Your task to perform on an android device: toggle priority inbox in the gmail app Image 0: 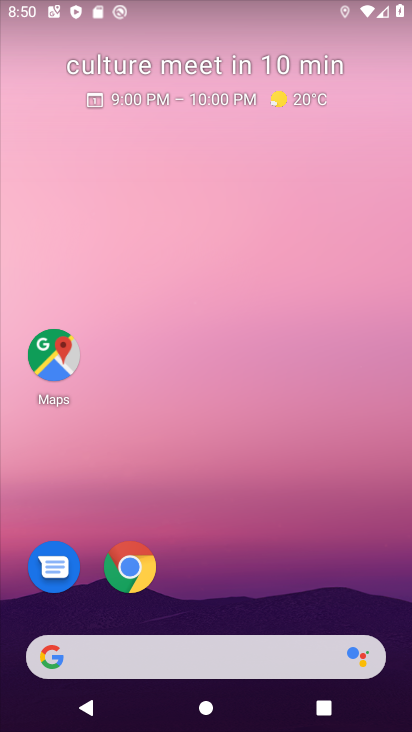
Step 0: drag from (201, 603) to (198, 68)
Your task to perform on an android device: toggle priority inbox in the gmail app Image 1: 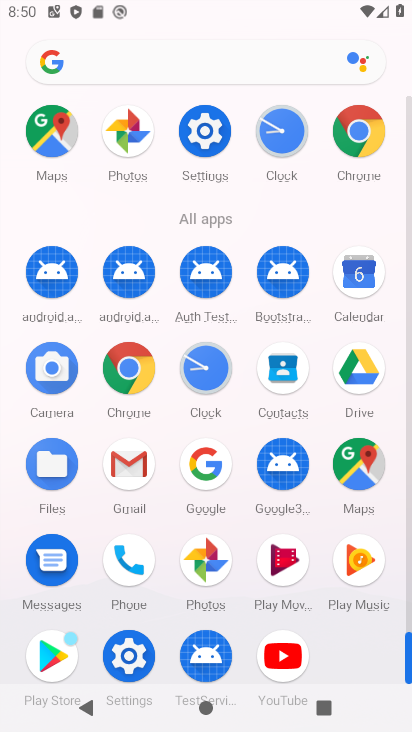
Step 1: click (127, 481)
Your task to perform on an android device: toggle priority inbox in the gmail app Image 2: 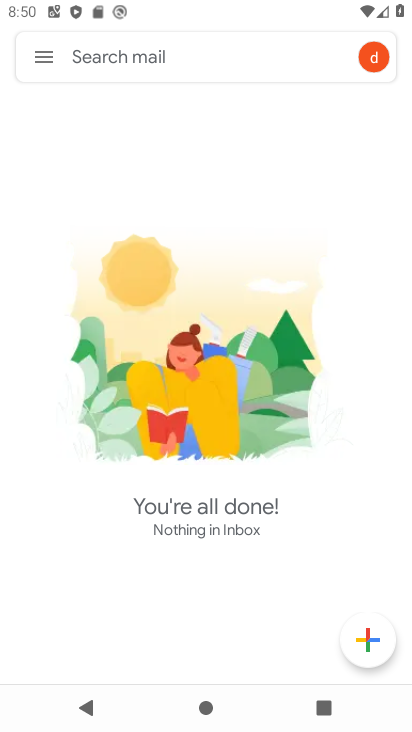
Step 2: click (46, 56)
Your task to perform on an android device: toggle priority inbox in the gmail app Image 3: 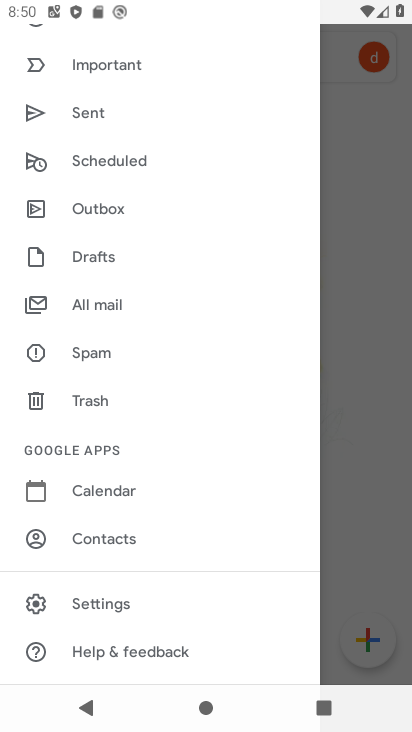
Step 3: click (116, 599)
Your task to perform on an android device: toggle priority inbox in the gmail app Image 4: 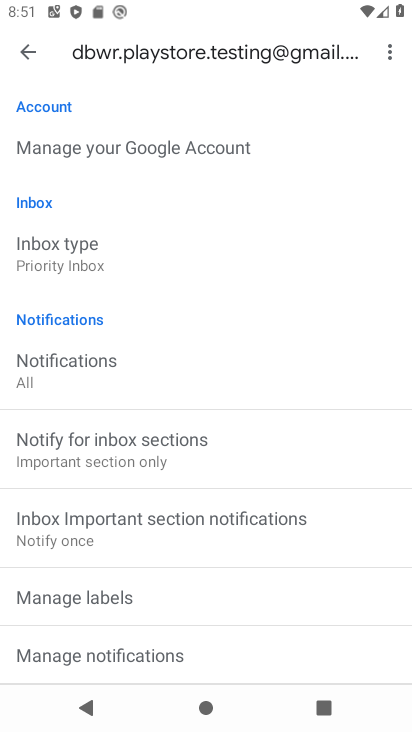
Step 4: task complete